Your task to perform on an android device: When is my next appointment? Image 0: 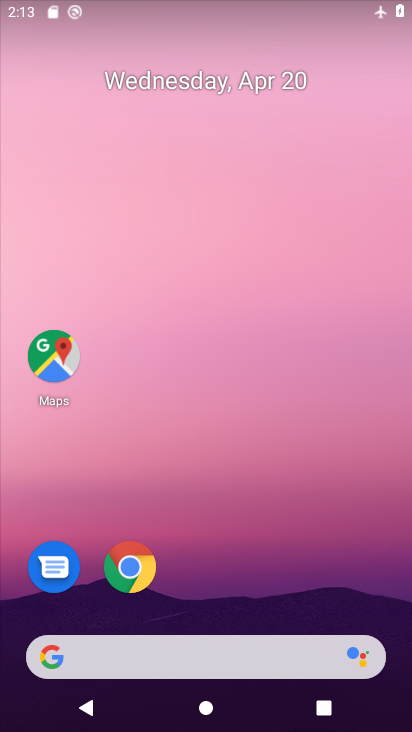
Step 0: drag from (191, 643) to (193, 173)
Your task to perform on an android device: When is my next appointment? Image 1: 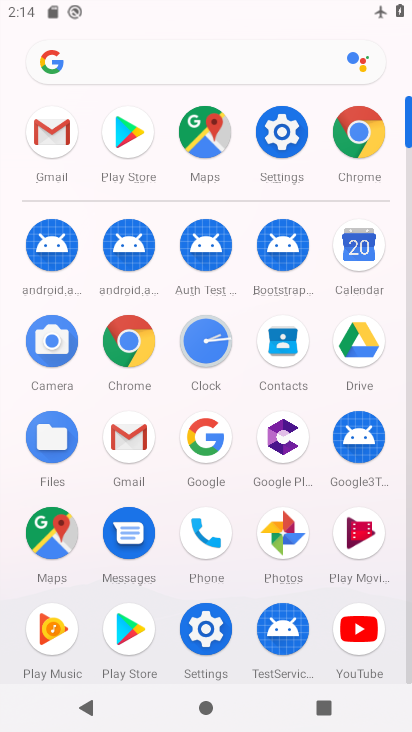
Step 1: click (361, 238)
Your task to perform on an android device: When is my next appointment? Image 2: 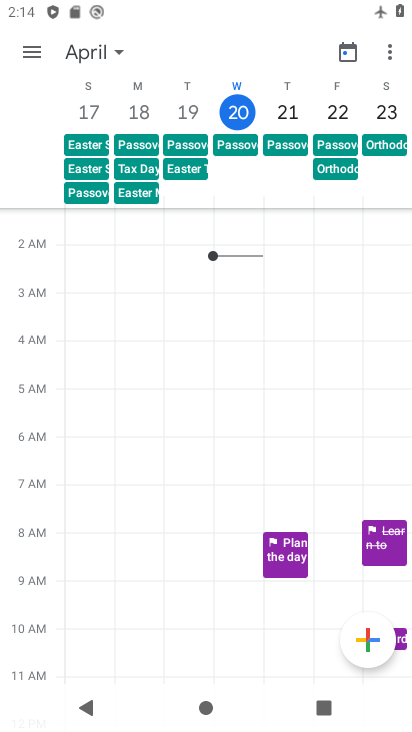
Step 2: click (32, 49)
Your task to perform on an android device: When is my next appointment? Image 3: 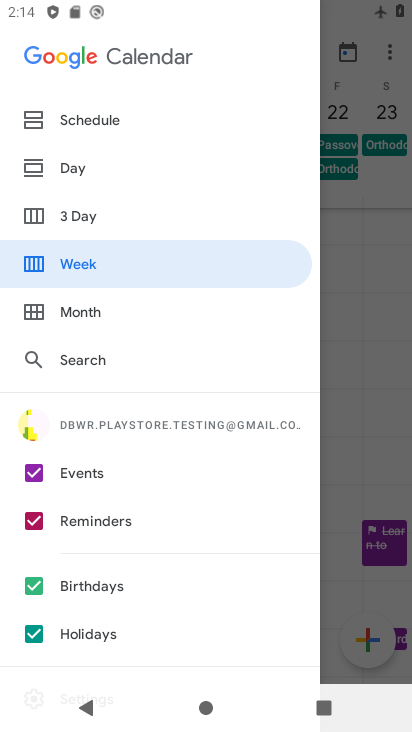
Step 3: click (69, 112)
Your task to perform on an android device: When is my next appointment? Image 4: 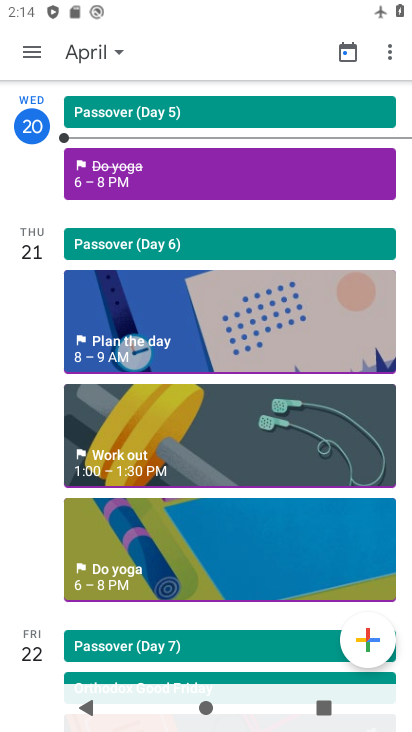
Step 4: task complete